Your task to perform on an android device: open app "Calculator" Image 0: 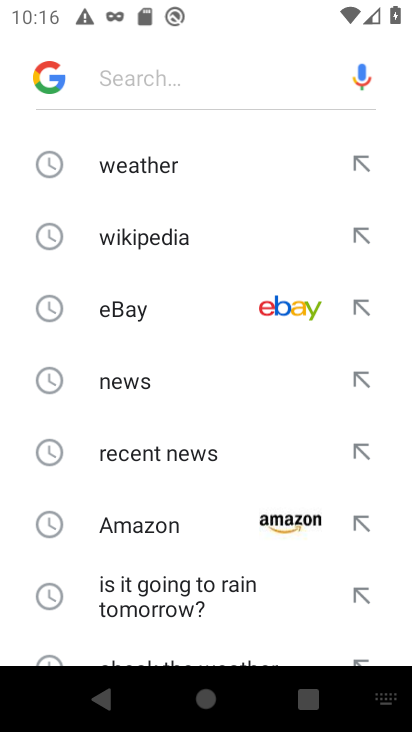
Step 0: press home button
Your task to perform on an android device: open app "Calculator" Image 1: 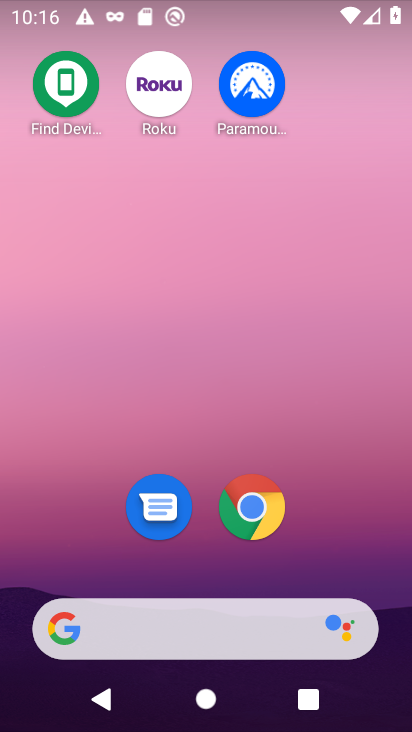
Step 1: drag from (174, 636) to (206, 156)
Your task to perform on an android device: open app "Calculator" Image 2: 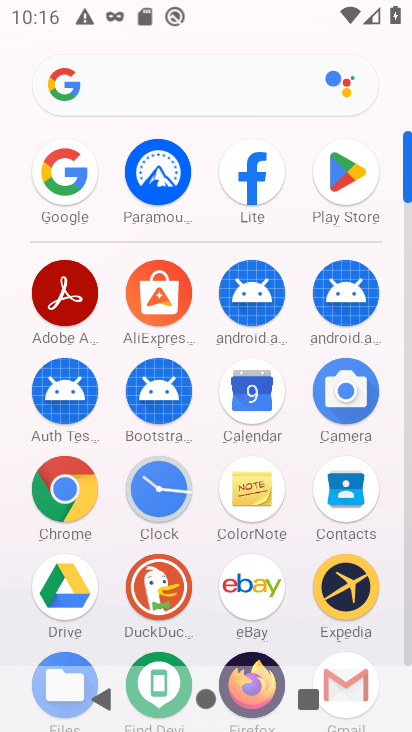
Step 2: click (343, 181)
Your task to perform on an android device: open app "Calculator" Image 3: 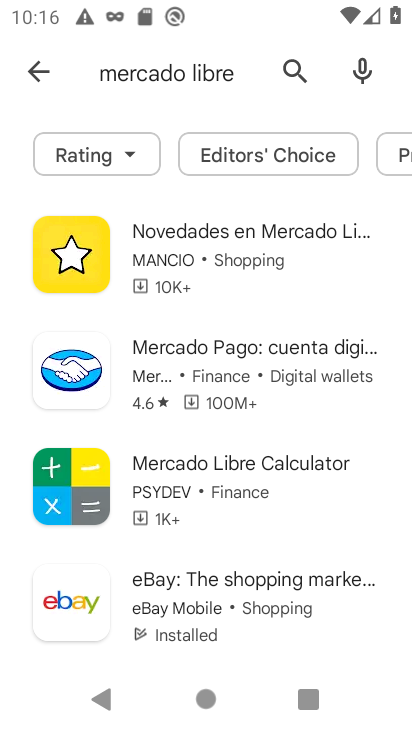
Step 3: click (299, 74)
Your task to perform on an android device: open app "Calculator" Image 4: 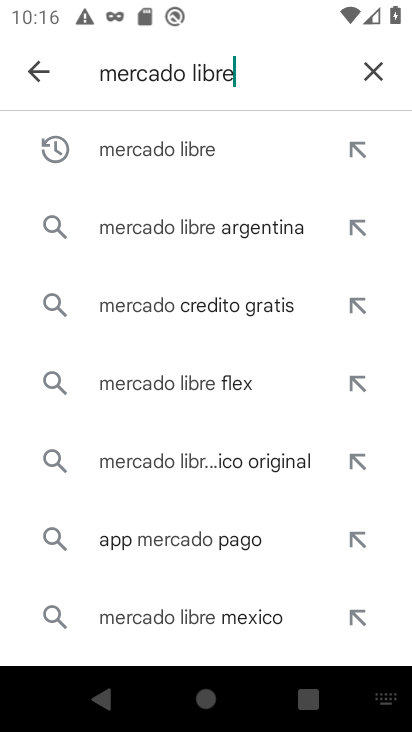
Step 4: click (371, 76)
Your task to perform on an android device: open app "Calculator" Image 5: 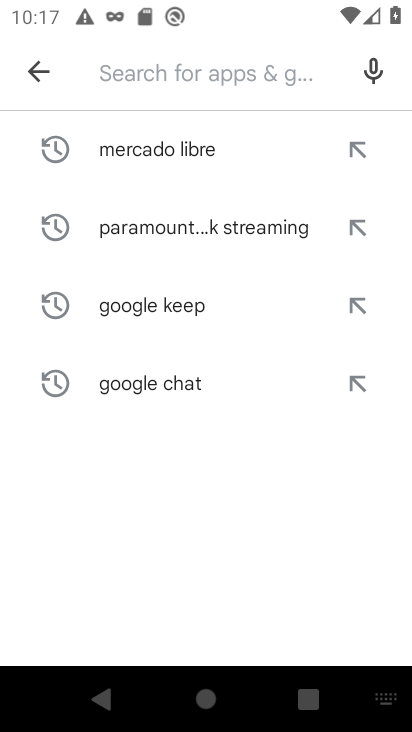
Step 5: type "Calculator"
Your task to perform on an android device: open app "Calculator" Image 6: 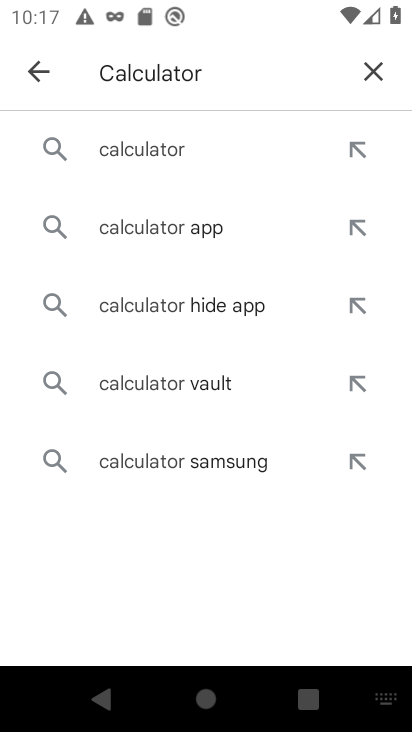
Step 6: click (174, 148)
Your task to perform on an android device: open app "Calculator" Image 7: 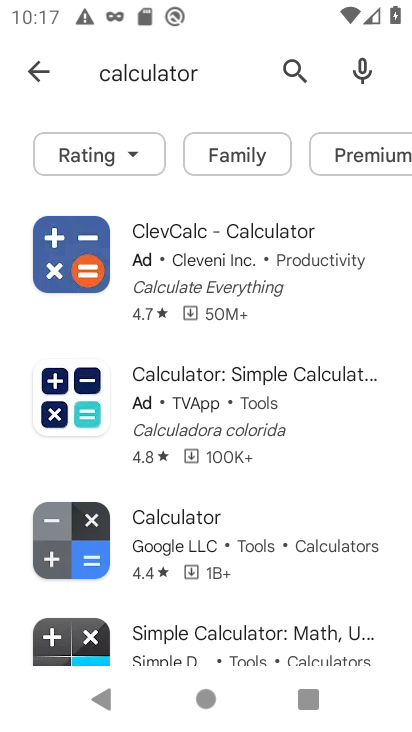
Step 7: task complete